Your task to perform on an android device: make emails show in primary in the gmail app Image 0: 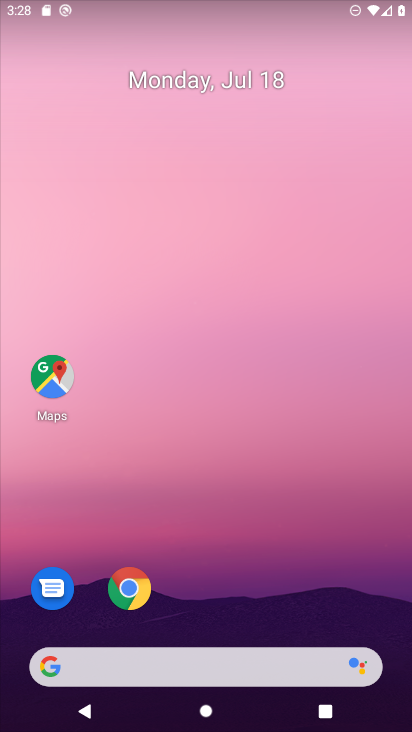
Step 0: press home button
Your task to perform on an android device: make emails show in primary in the gmail app Image 1: 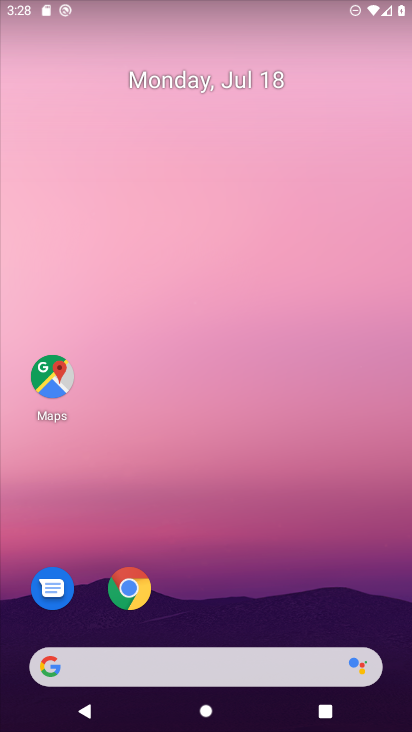
Step 1: drag from (212, 622) to (197, 1)
Your task to perform on an android device: make emails show in primary in the gmail app Image 2: 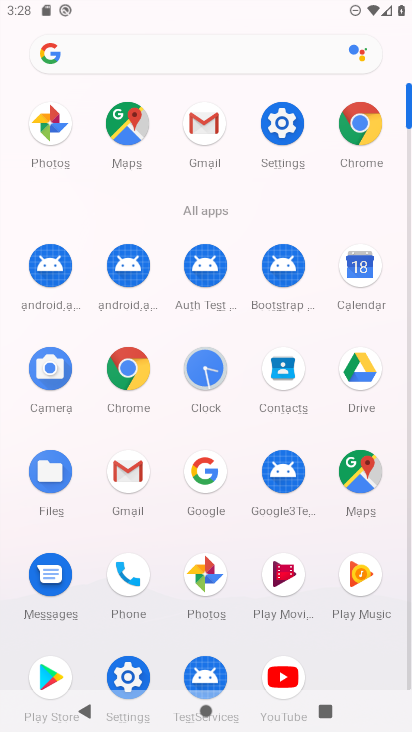
Step 2: click (127, 464)
Your task to perform on an android device: make emails show in primary in the gmail app Image 3: 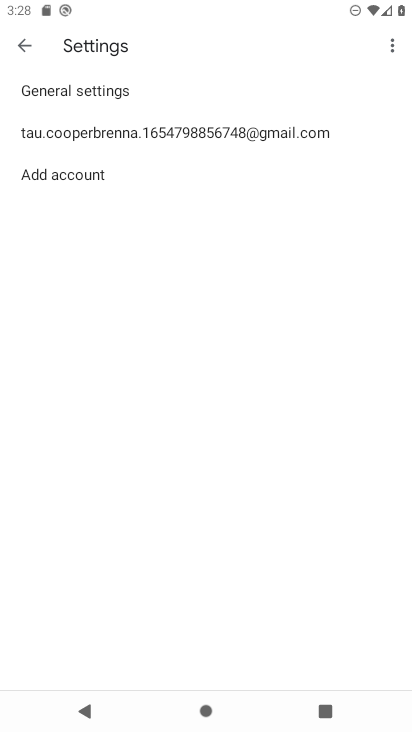
Step 3: click (157, 129)
Your task to perform on an android device: make emails show in primary in the gmail app Image 4: 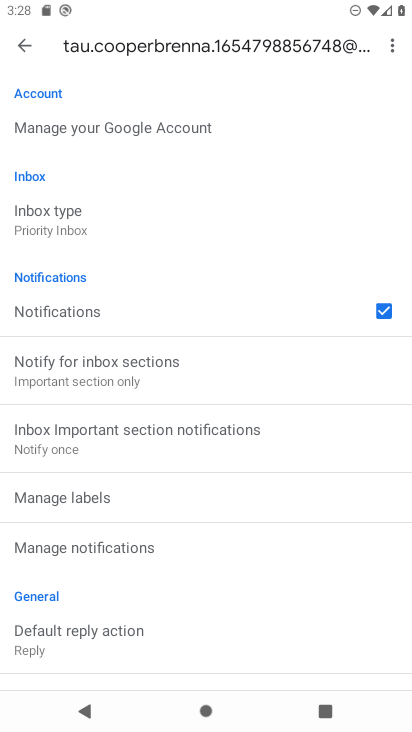
Step 4: click (71, 221)
Your task to perform on an android device: make emails show in primary in the gmail app Image 5: 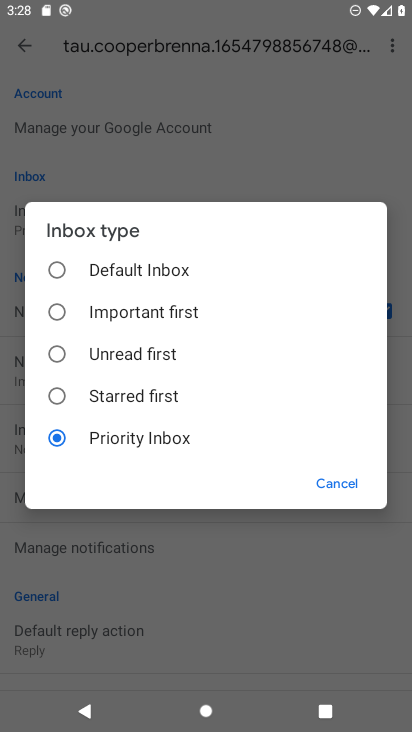
Step 5: click (52, 270)
Your task to perform on an android device: make emails show in primary in the gmail app Image 6: 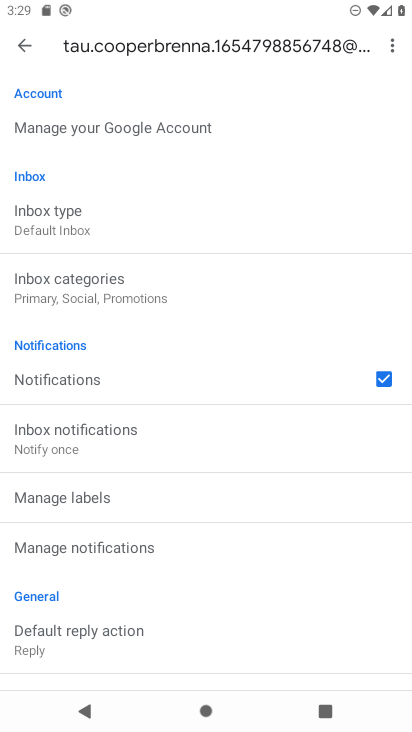
Step 6: task complete